Your task to perform on an android device: Search for sushi restaurants on Maps Image 0: 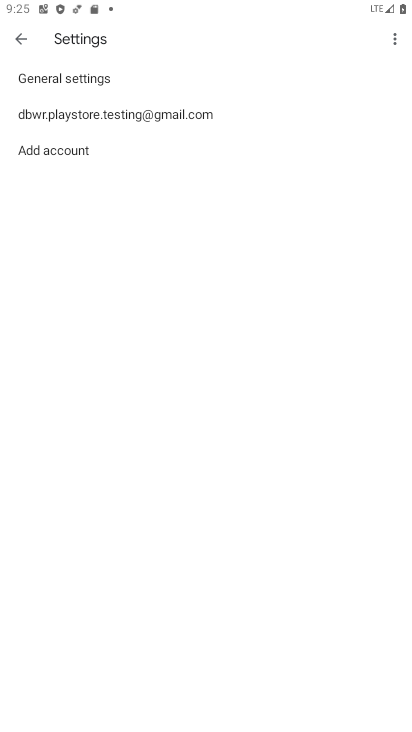
Step 0: press back button
Your task to perform on an android device: Search for sushi restaurants on Maps Image 1: 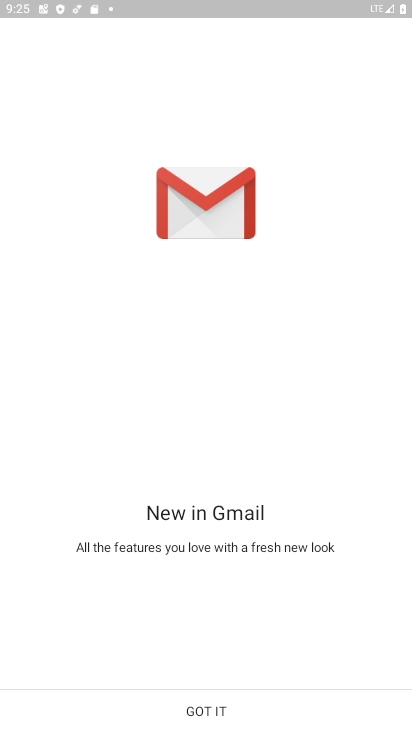
Step 1: click (201, 697)
Your task to perform on an android device: Search for sushi restaurants on Maps Image 2: 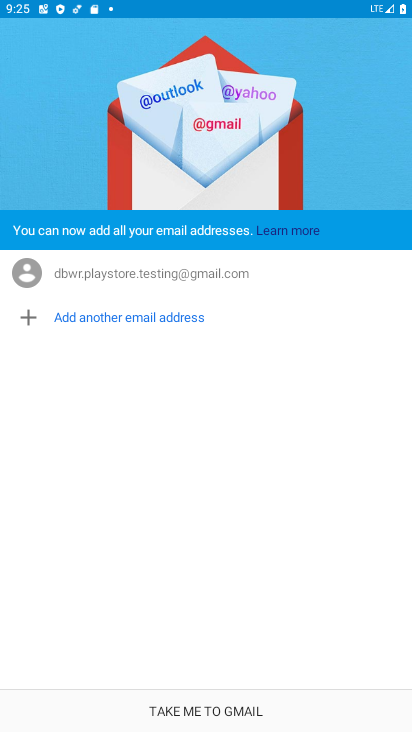
Step 2: click (222, 709)
Your task to perform on an android device: Search for sushi restaurants on Maps Image 3: 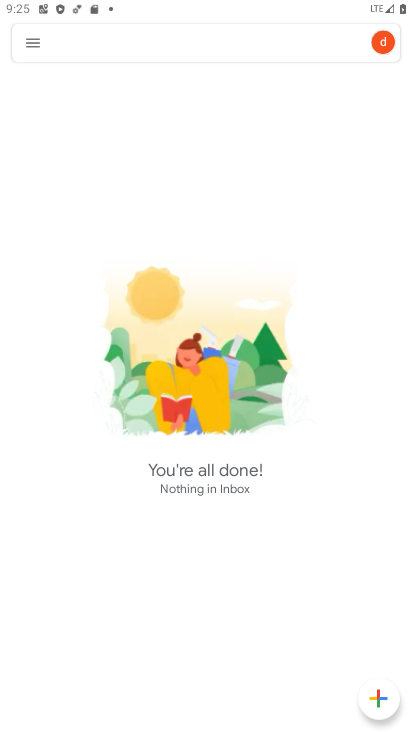
Step 3: press home button
Your task to perform on an android device: Search for sushi restaurants on Maps Image 4: 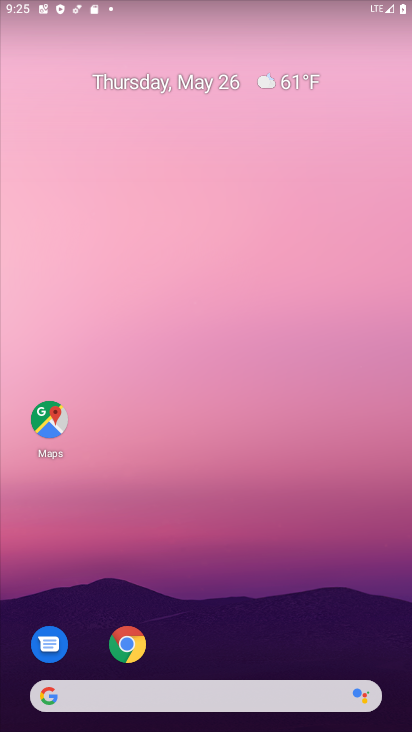
Step 4: drag from (240, 659) to (197, 0)
Your task to perform on an android device: Search for sushi restaurants on Maps Image 5: 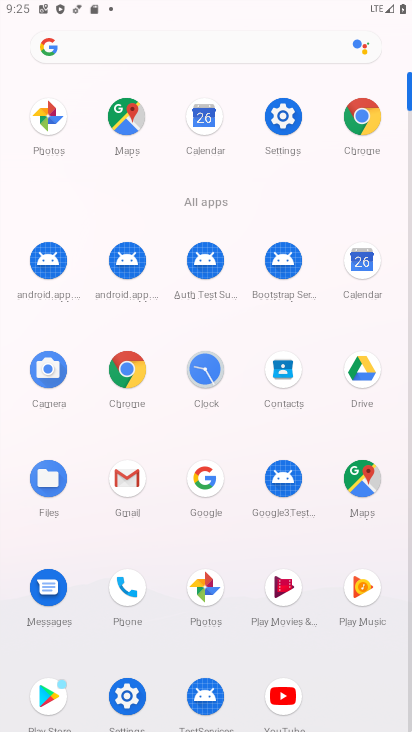
Step 5: click (366, 483)
Your task to perform on an android device: Search for sushi restaurants on Maps Image 6: 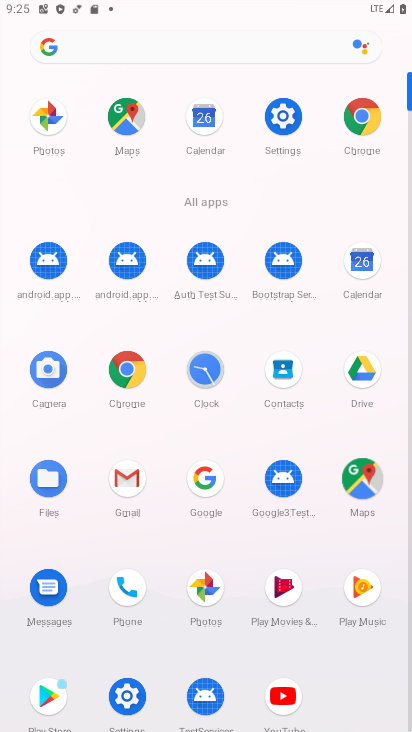
Step 6: click (367, 479)
Your task to perform on an android device: Search for sushi restaurants on Maps Image 7: 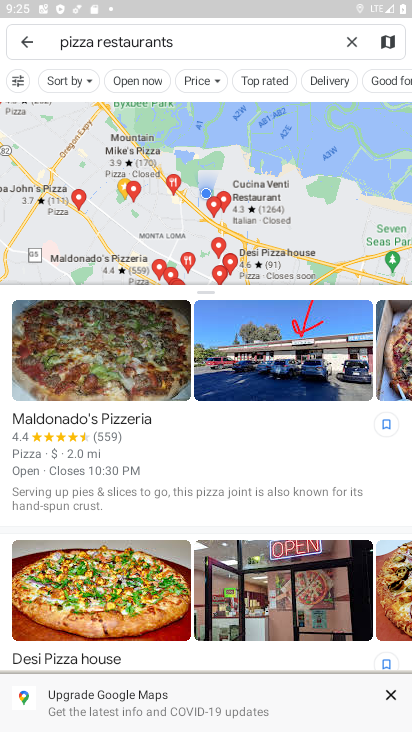
Step 7: click (19, 42)
Your task to perform on an android device: Search for sushi restaurants on Maps Image 8: 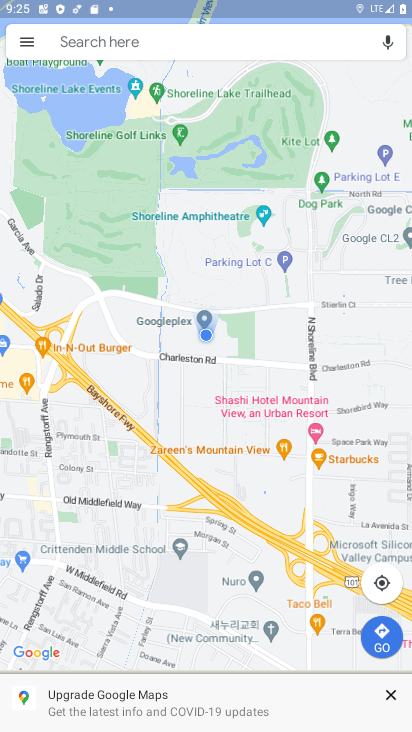
Step 8: click (61, 48)
Your task to perform on an android device: Search for sushi restaurants on Maps Image 9: 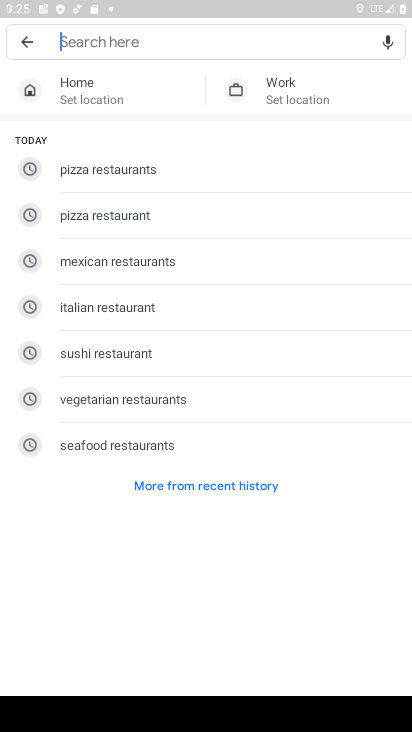
Step 9: click (112, 361)
Your task to perform on an android device: Search for sushi restaurants on Maps Image 10: 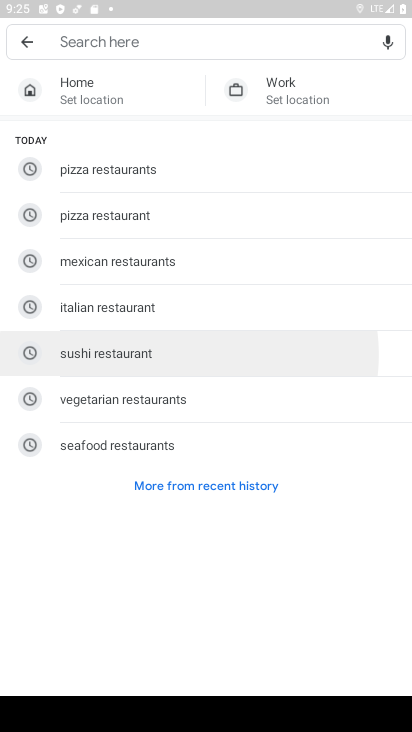
Step 10: click (112, 361)
Your task to perform on an android device: Search for sushi restaurants on Maps Image 11: 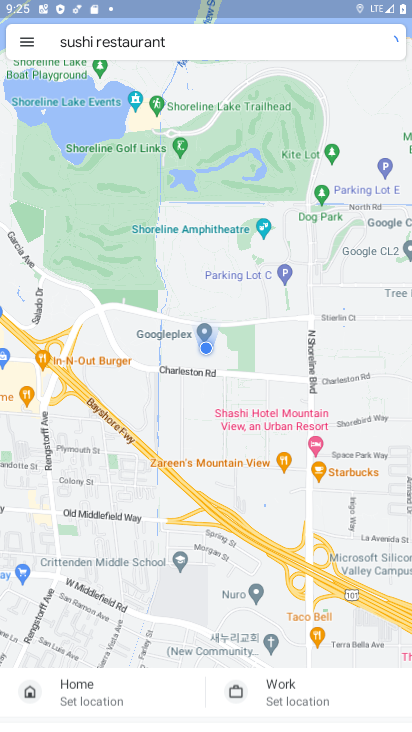
Step 11: click (112, 361)
Your task to perform on an android device: Search for sushi restaurants on Maps Image 12: 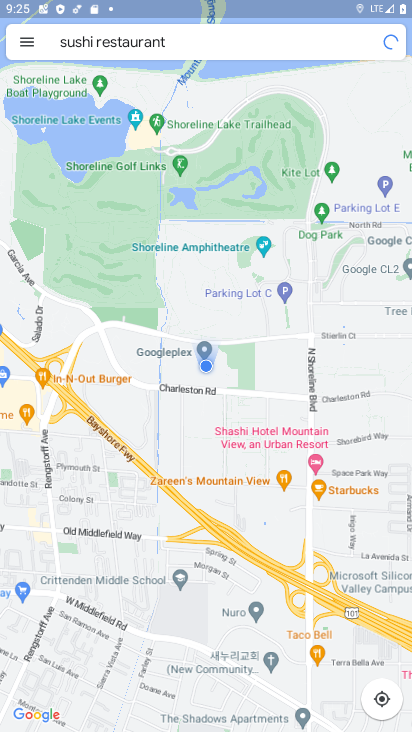
Step 12: click (112, 361)
Your task to perform on an android device: Search for sushi restaurants on Maps Image 13: 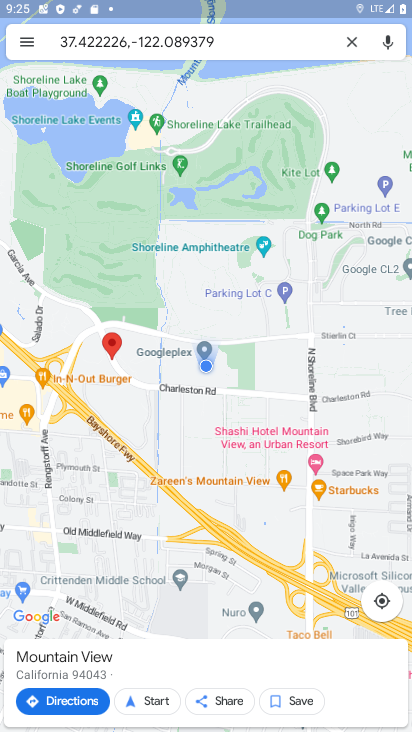
Step 13: task complete